Your task to perform on an android device: Open the stopwatch Image 0: 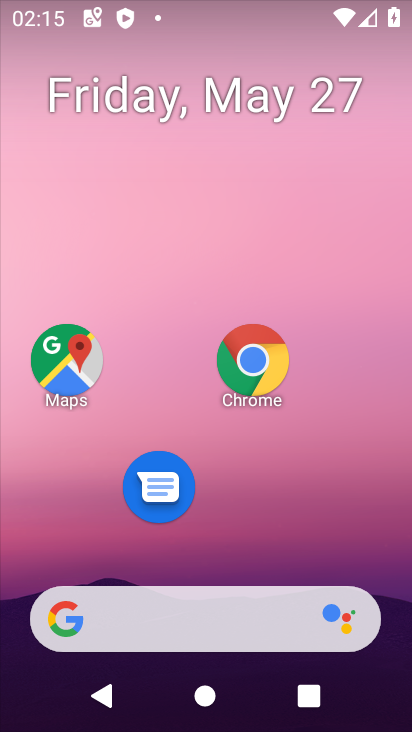
Step 0: drag from (244, 510) to (261, 97)
Your task to perform on an android device: Open the stopwatch Image 1: 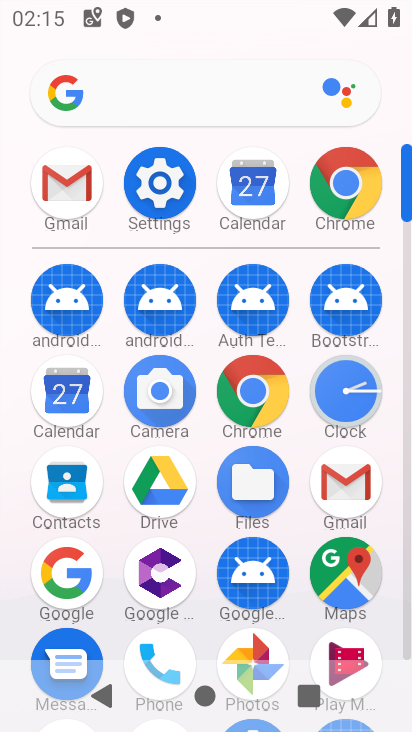
Step 1: click (349, 388)
Your task to perform on an android device: Open the stopwatch Image 2: 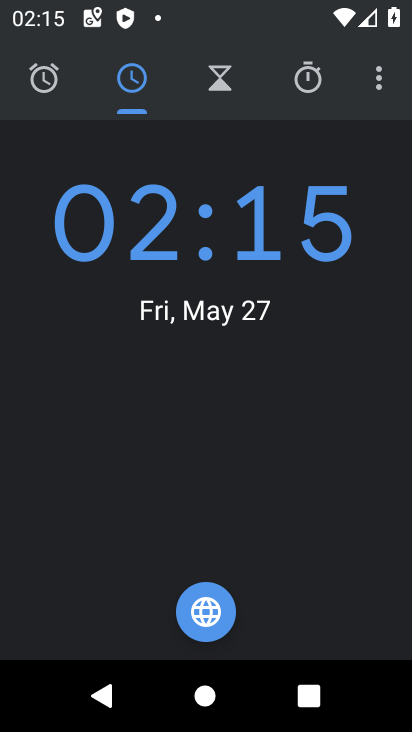
Step 2: click (318, 70)
Your task to perform on an android device: Open the stopwatch Image 3: 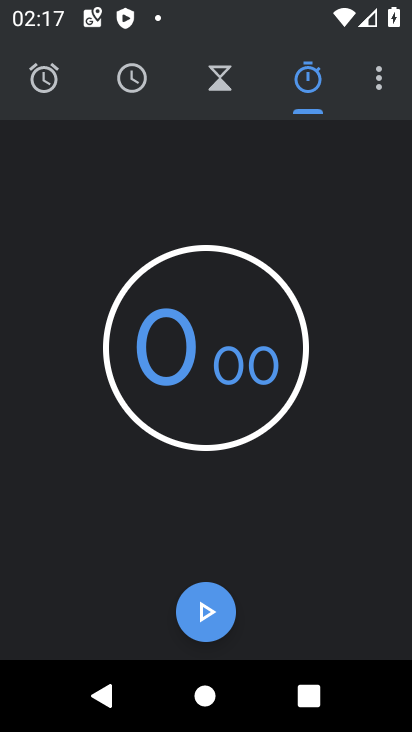
Step 3: click (203, 612)
Your task to perform on an android device: Open the stopwatch Image 4: 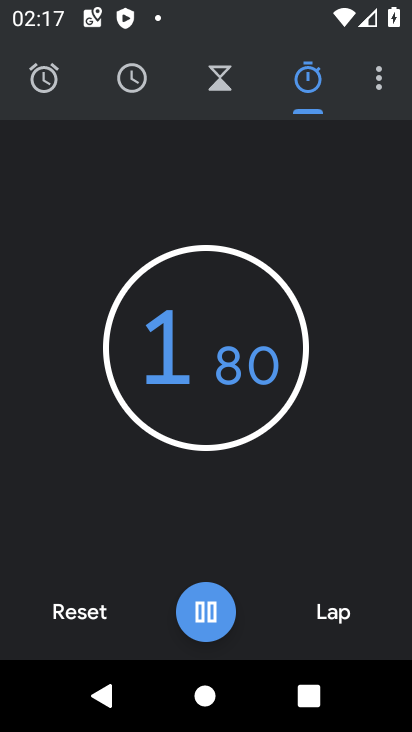
Step 4: task complete